Your task to perform on an android device: turn off priority inbox in the gmail app Image 0: 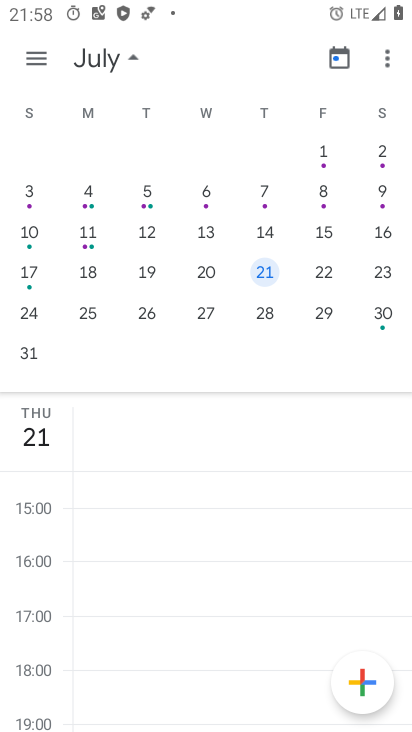
Step 0: press home button
Your task to perform on an android device: turn off priority inbox in the gmail app Image 1: 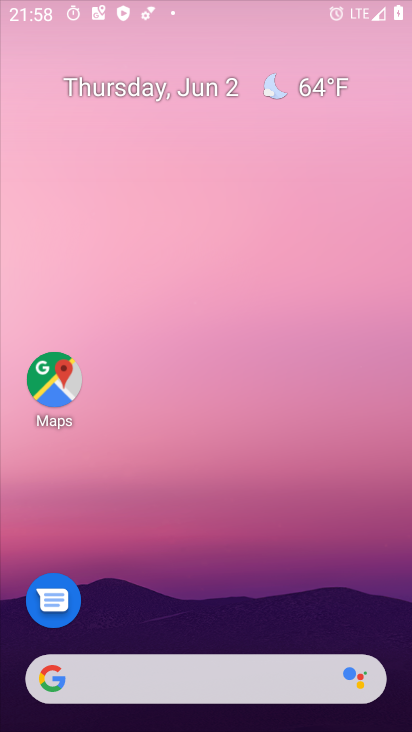
Step 1: drag from (226, 603) to (233, 69)
Your task to perform on an android device: turn off priority inbox in the gmail app Image 2: 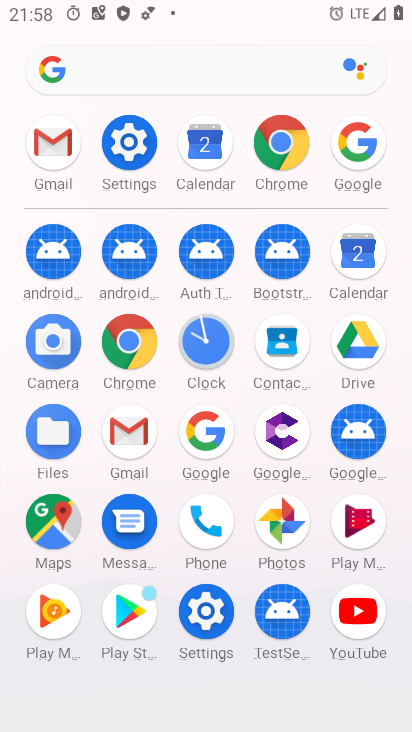
Step 2: click (142, 423)
Your task to perform on an android device: turn off priority inbox in the gmail app Image 3: 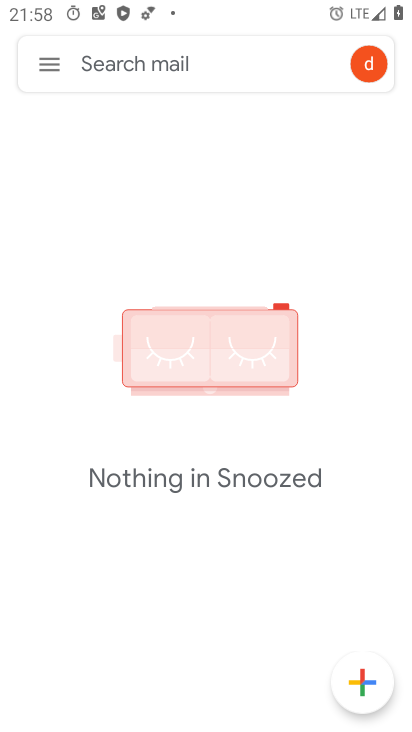
Step 3: click (45, 65)
Your task to perform on an android device: turn off priority inbox in the gmail app Image 4: 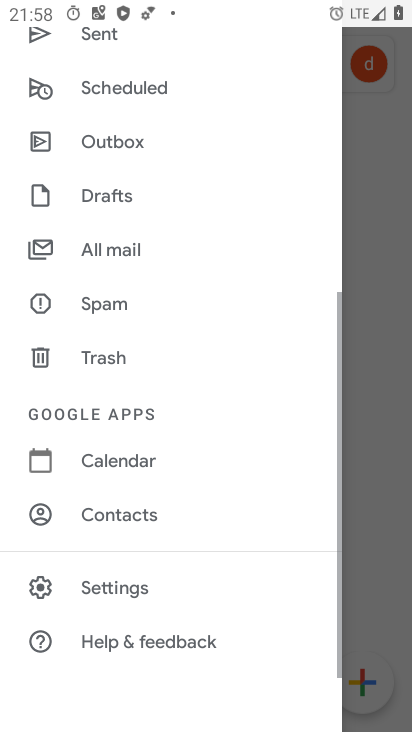
Step 4: click (144, 583)
Your task to perform on an android device: turn off priority inbox in the gmail app Image 5: 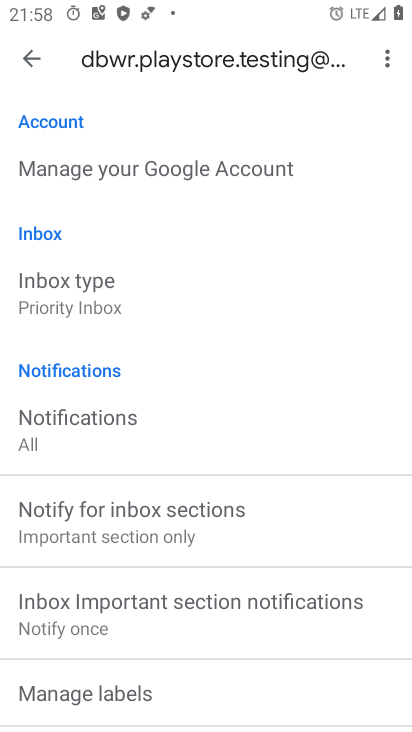
Step 5: click (79, 286)
Your task to perform on an android device: turn off priority inbox in the gmail app Image 6: 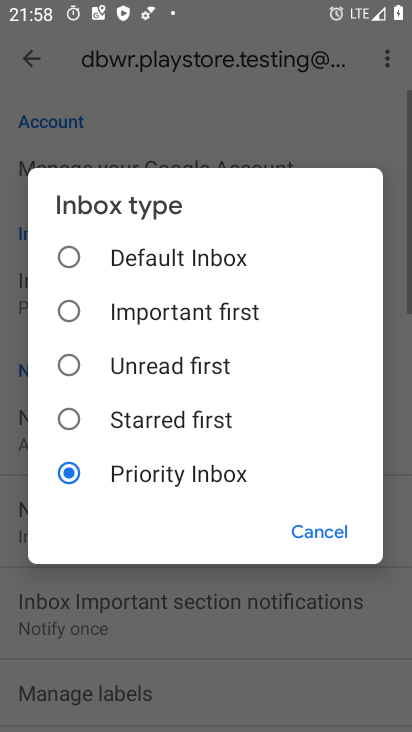
Step 6: click (77, 258)
Your task to perform on an android device: turn off priority inbox in the gmail app Image 7: 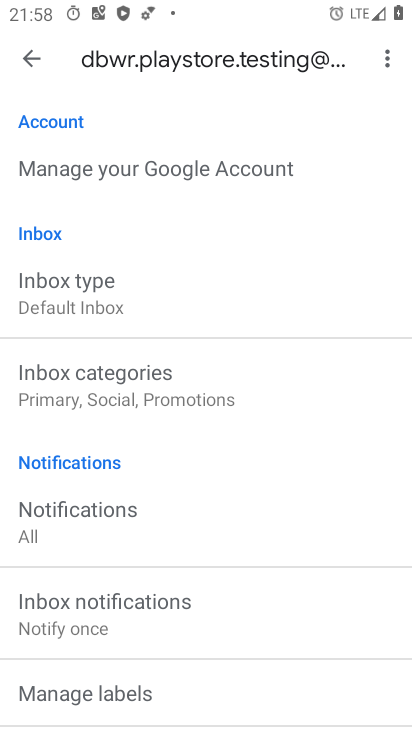
Step 7: task complete